Your task to perform on an android device: turn off notifications settings in the gmail app Image 0: 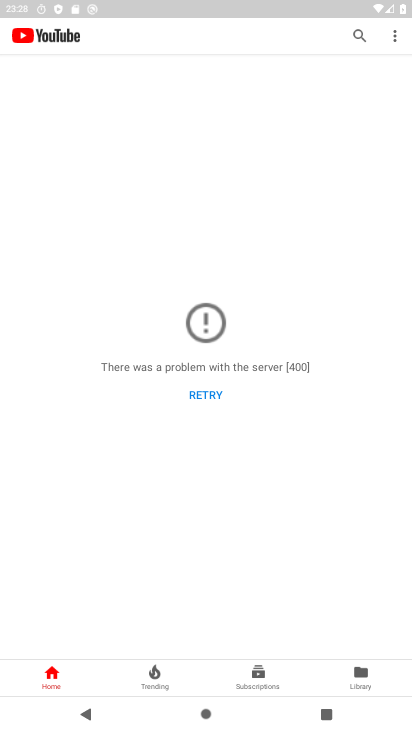
Step 0: press home button
Your task to perform on an android device: turn off notifications settings in the gmail app Image 1: 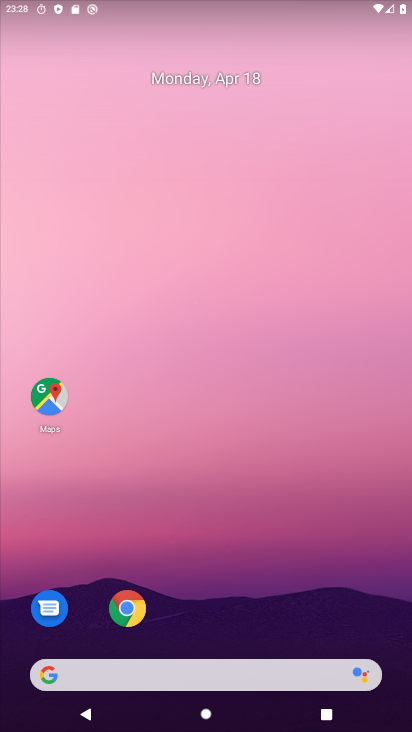
Step 1: drag from (205, 520) to (214, 151)
Your task to perform on an android device: turn off notifications settings in the gmail app Image 2: 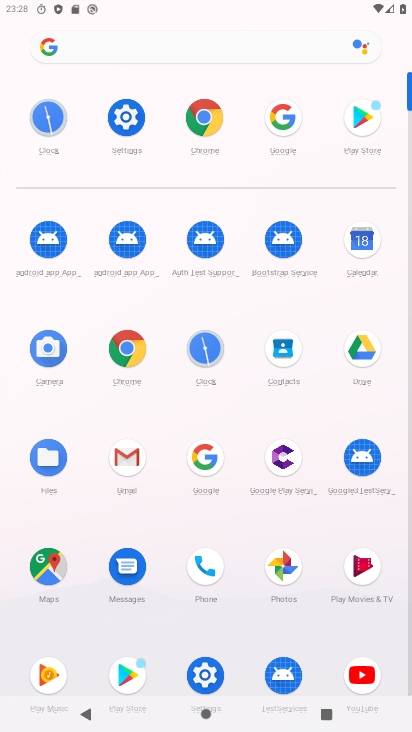
Step 2: click (123, 459)
Your task to perform on an android device: turn off notifications settings in the gmail app Image 3: 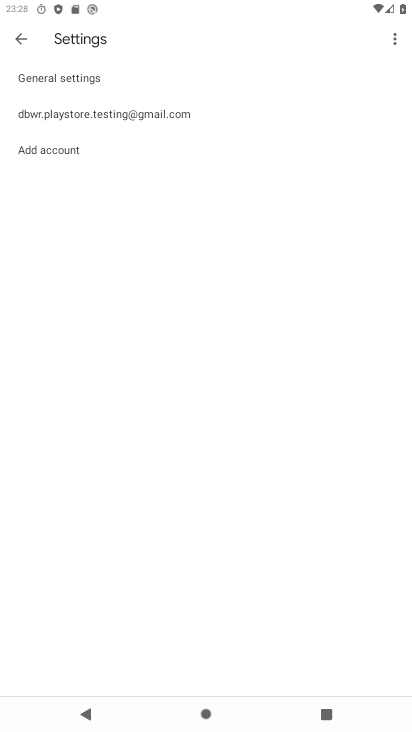
Step 3: click (62, 111)
Your task to perform on an android device: turn off notifications settings in the gmail app Image 4: 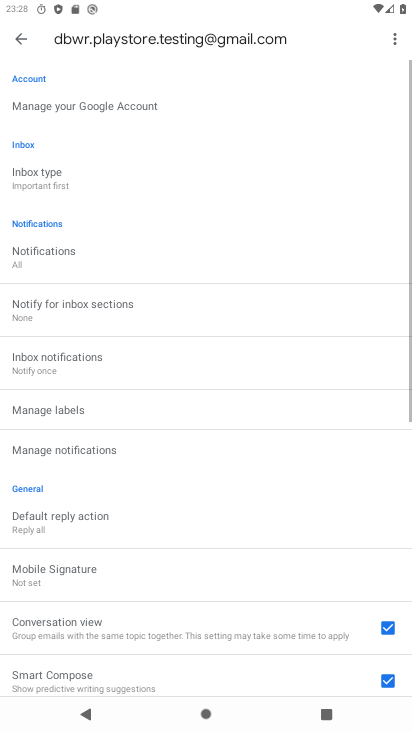
Step 4: click (84, 259)
Your task to perform on an android device: turn off notifications settings in the gmail app Image 5: 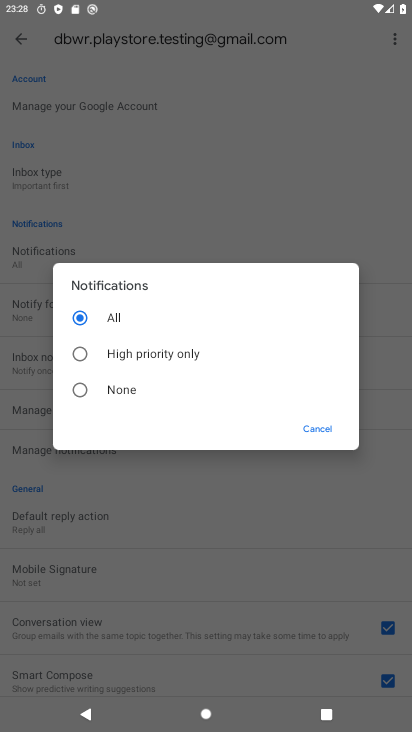
Step 5: click (75, 395)
Your task to perform on an android device: turn off notifications settings in the gmail app Image 6: 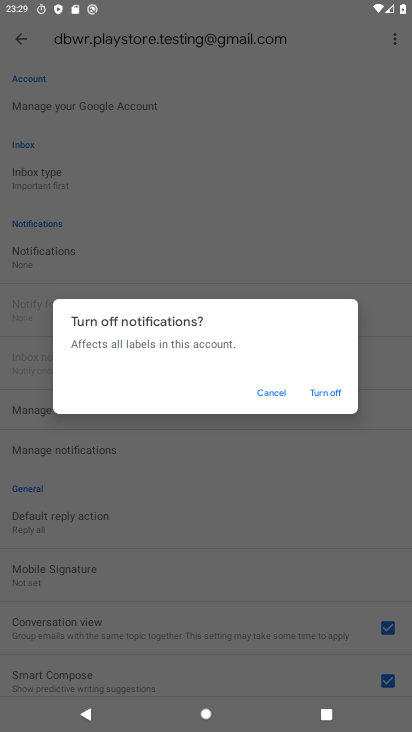
Step 6: click (325, 391)
Your task to perform on an android device: turn off notifications settings in the gmail app Image 7: 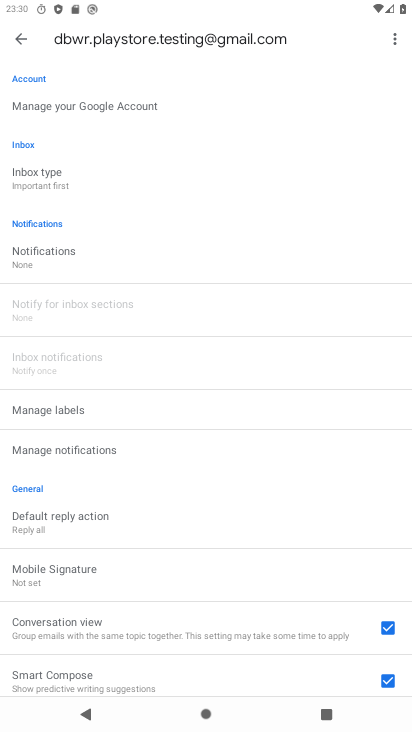
Step 7: task complete